Your task to perform on an android device: remove spam from my inbox in the gmail app Image 0: 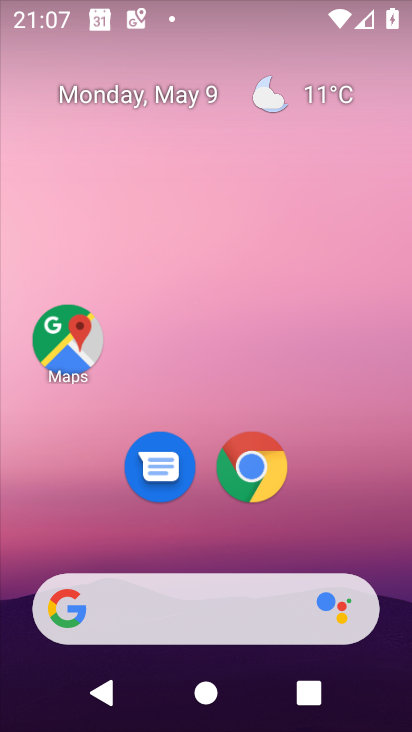
Step 0: drag from (346, 517) to (320, 189)
Your task to perform on an android device: remove spam from my inbox in the gmail app Image 1: 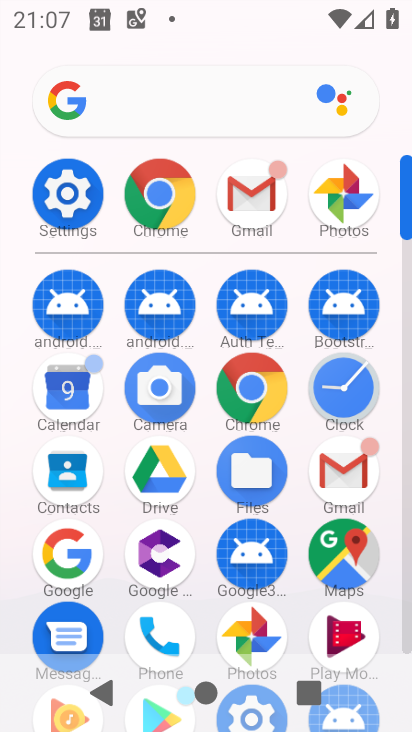
Step 1: click (331, 471)
Your task to perform on an android device: remove spam from my inbox in the gmail app Image 2: 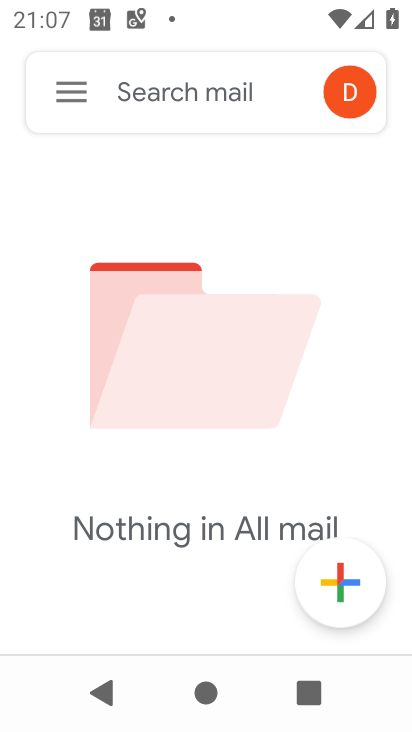
Step 2: click (79, 95)
Your task to perform on an android device: remove spam from my inbox in the gmail app Image 3: 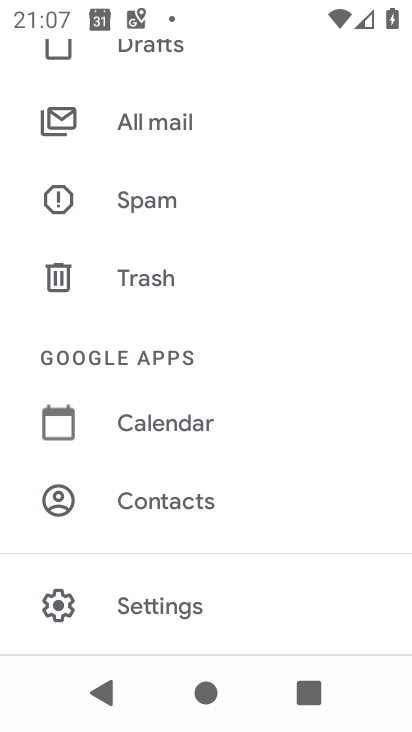
Step 3: click (139, 195)
Your task to perform on an android device: remove spam from my inbox in the gmail app Image 4: 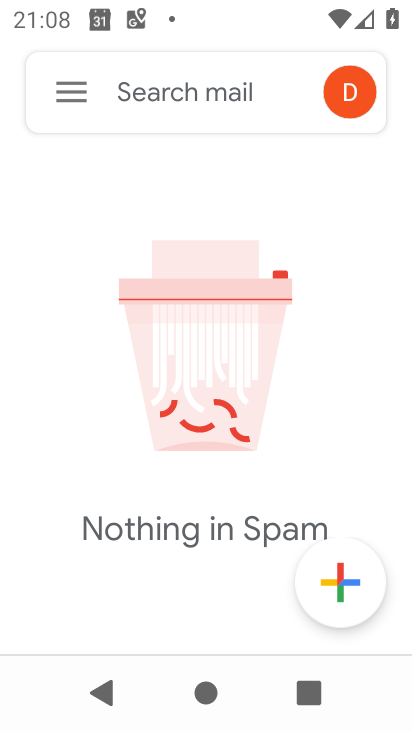
Step 4: task complete